Your task to perform on an android device: Open the map Image 0: 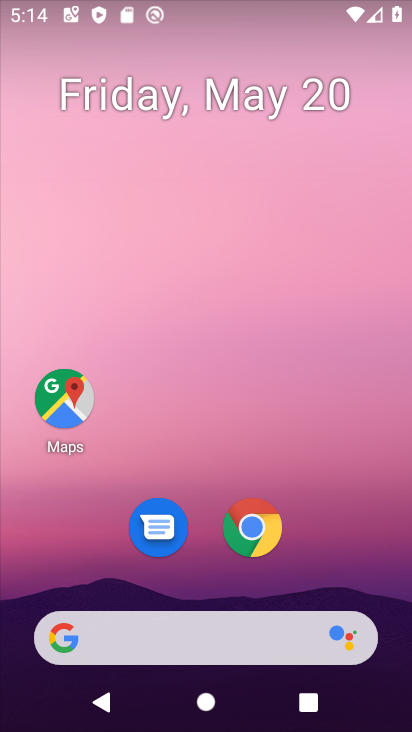
Step 0: drag from (295, 608) to (333, 19)
Your task to perform on an android device: Open the map Image 1: 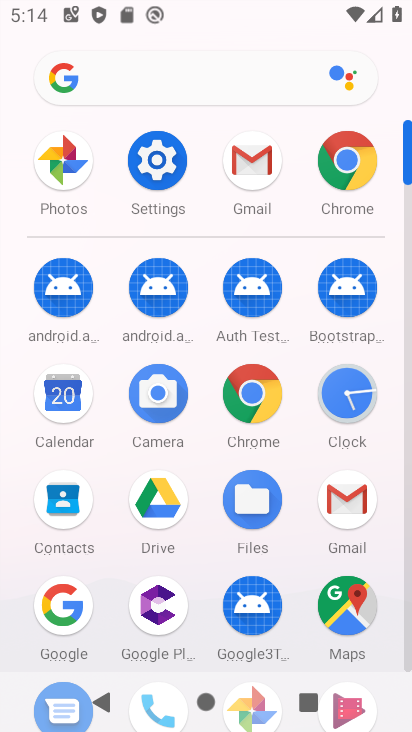
Step 1: click (355, 618)
Your task to perform on an android device: Open the map Image 2: 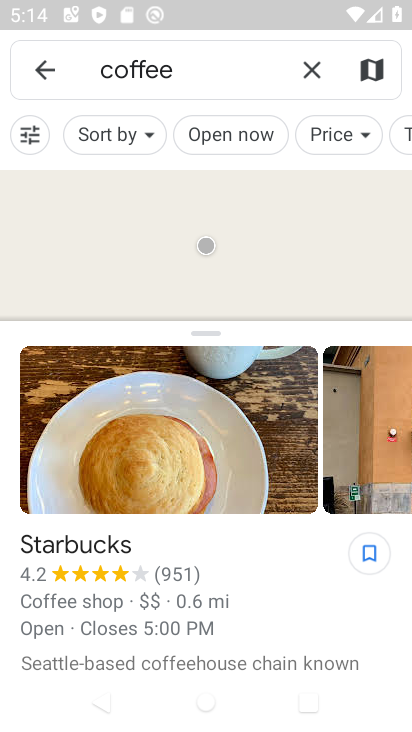
Step 2: task complete